Your task to perform on an android device: Go to eBay Image 0: 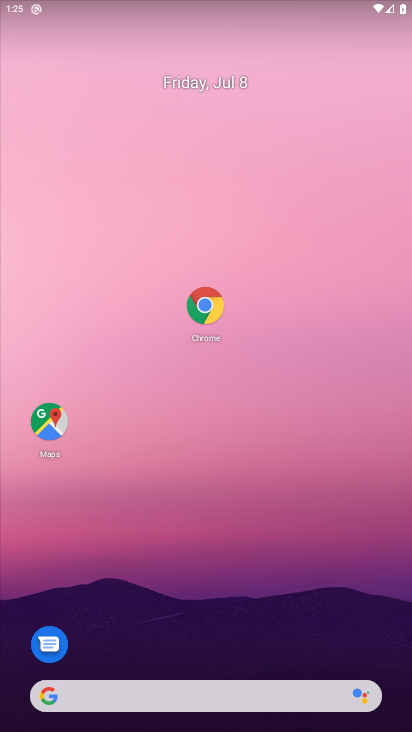
Step 0: click (198, 308)
Your task to perform on an android device: Go to eBay Image 1: 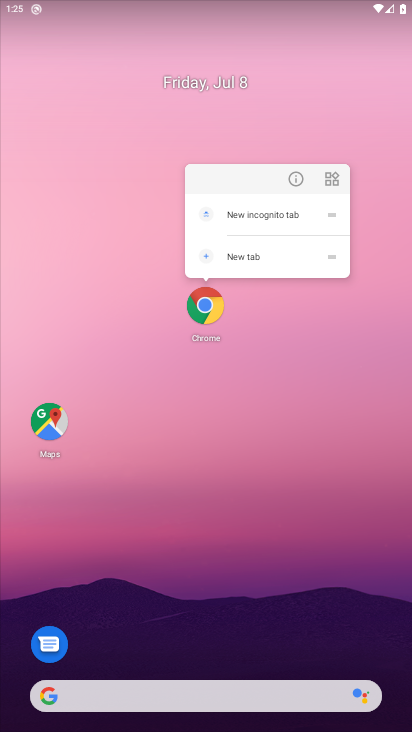
Step 1: click (198, 308)
Your task to perform on an android device: Go to eBay Image 2: 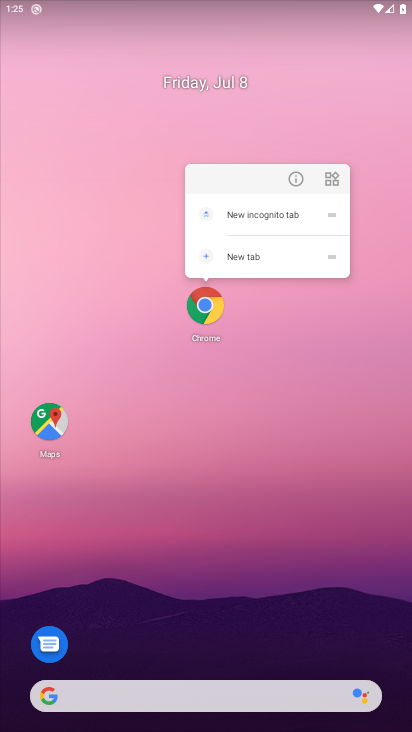
Step 2: click (211, 308)
Your task to perform on an android device: Go to eBay Image 3: 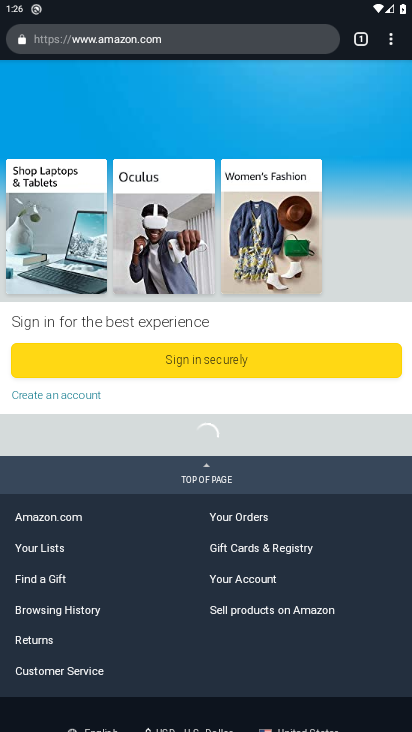
Step 3: click (353, 40)
Your task to perform on an android device: Go to eBay Image 4: 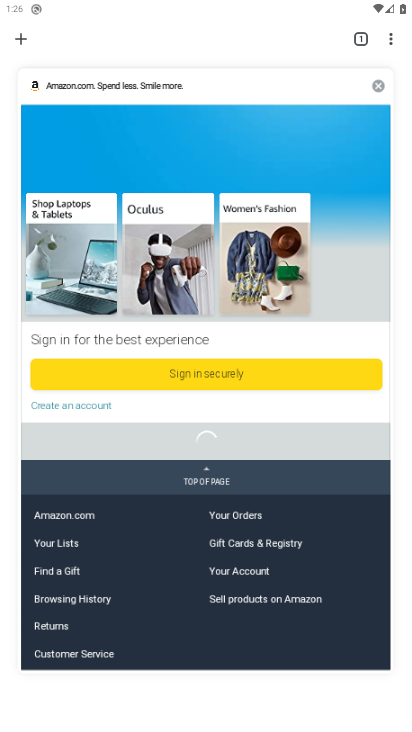
Step 4: click (379, 80)
Your task to perform on an android device: Go to eBay Image 5: 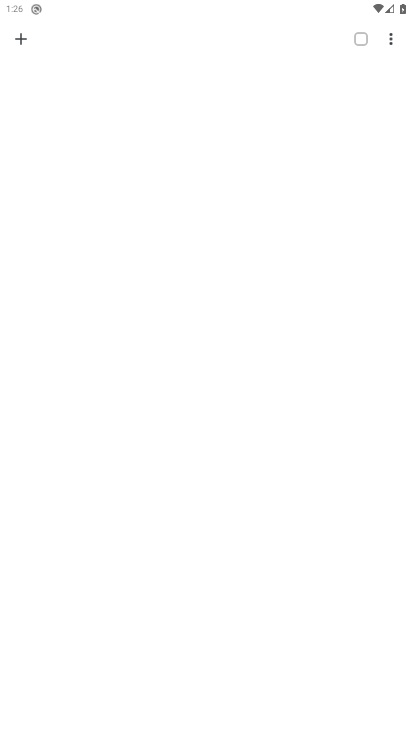
Step 5: click (21, 37)
Your task to perform on an android device: Go to eBay Image 6: 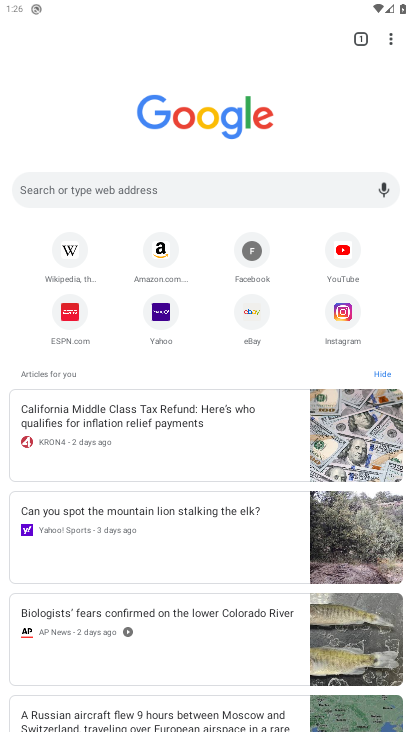
Step 6: click (247, 313)
Your task to perform on an android device: Go to eBay Image 7: 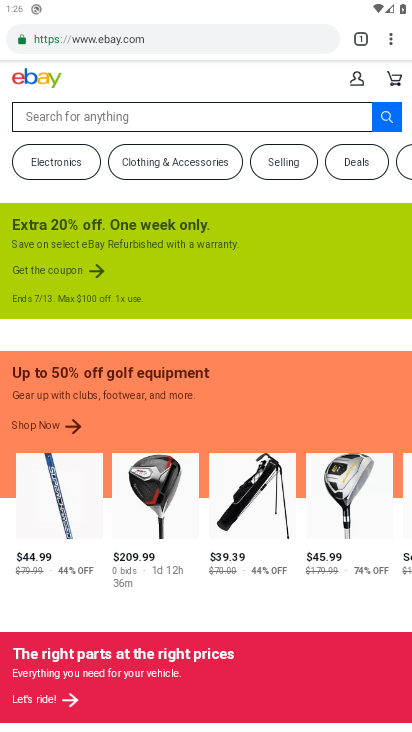
Step 7: task complete